Your task to perform on an android device: turn on notifications settings in the gmail app Image 0: 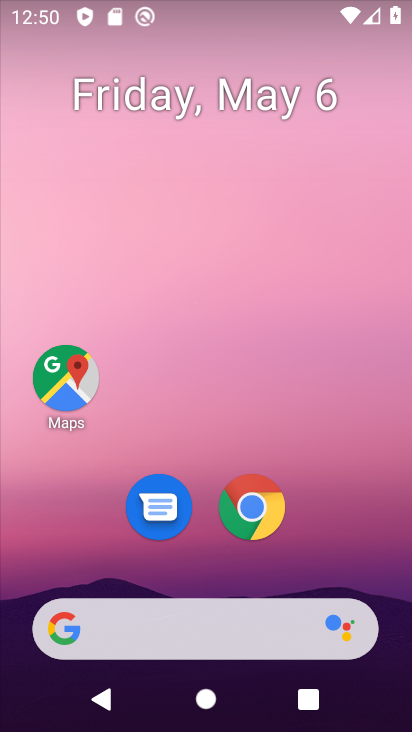
Step 0: drag from (161, 611) to (300, 74)
Your task to perform on an android device: turn on notifications settings in the gmail app Image 1: 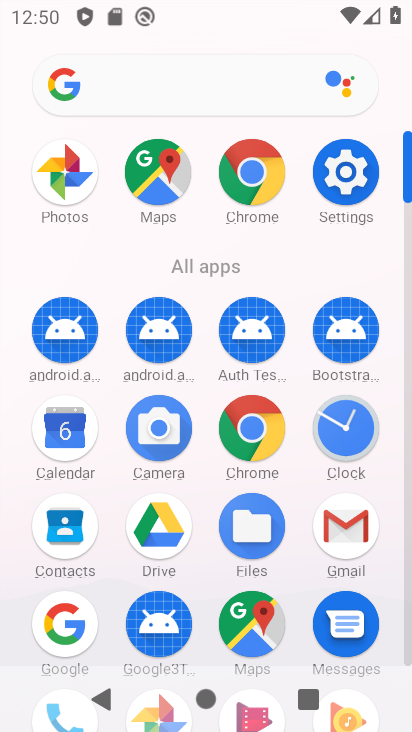
Step 1: click (354, 525)
Your task to perform on an android device: turn on notifications settings in the gmail app Image 2: 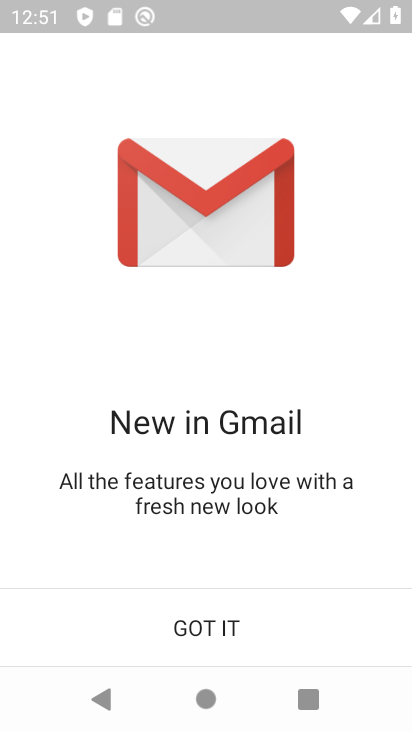
Step 2: click (248, 635)
Your task to perform on an android device: turn on notifications settings in the gmail app Image 3: 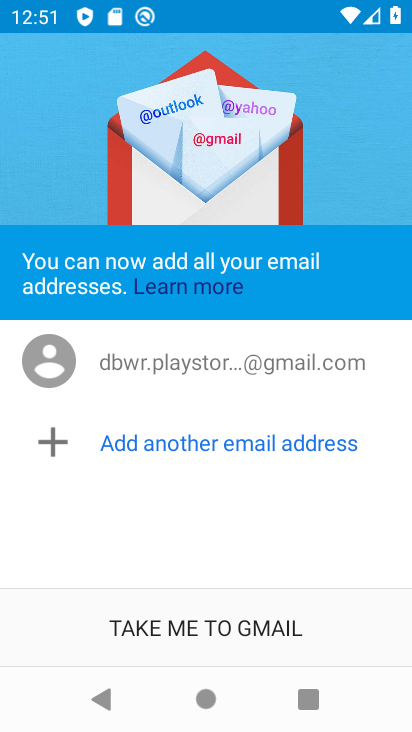
Step 3: click (185, 637)
Your task to perform on an android device: turn on notifications settings in the gmail app Image 4: 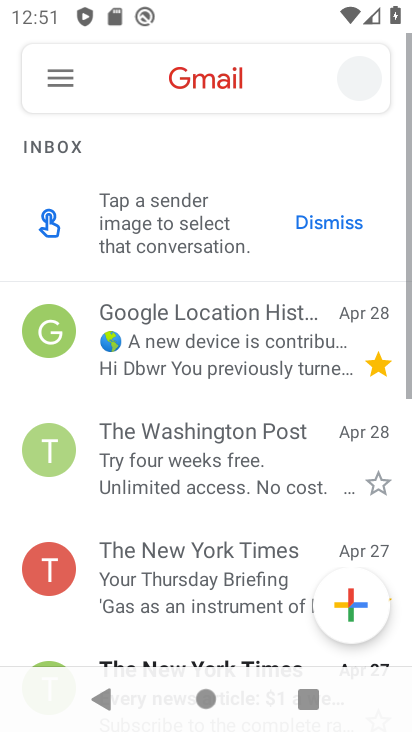
Step 4: click (65, 79)
Your task to perform on an android device: turn on notifications settings in the gmail app Image 5: 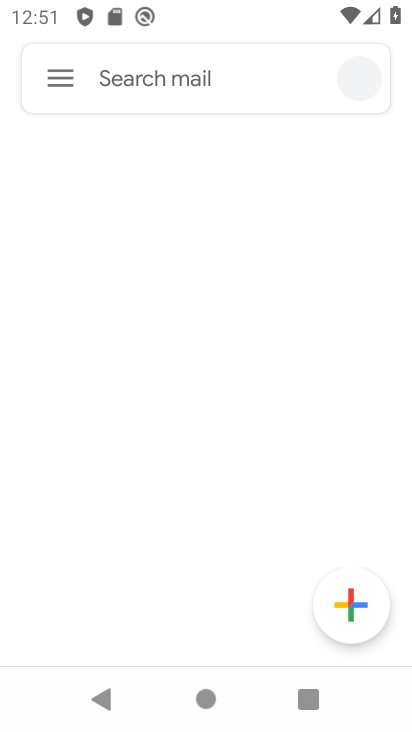
Step 5: drag from (140, 614) to (237, 174)
Your task to perform on an android device: turn on notifications settings in the gmail app Image 6: 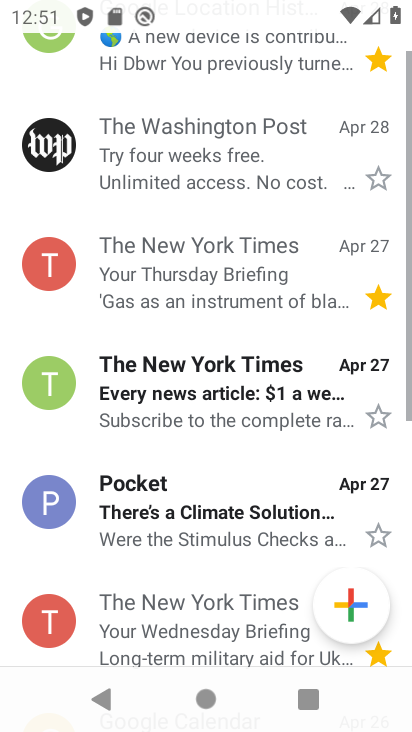
Step 6: drag from (136, 140) to (133, 622)
Your task to perform on an android device: turn on notifications settings in the gmail app Image 7: 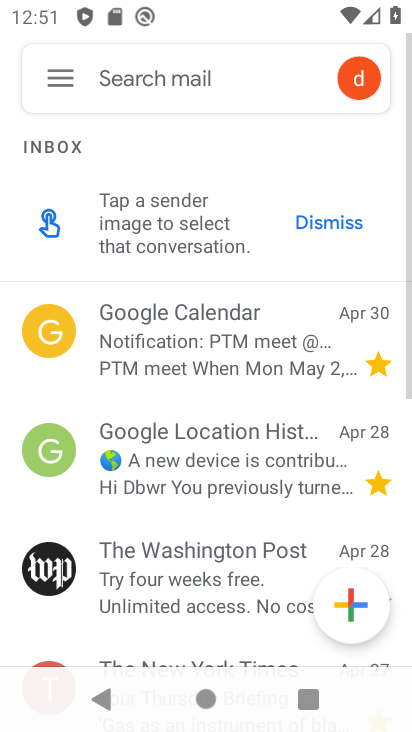
Step 7: click (44, 66)
Your task to perform on an android device: turn on notifications settings in the gmail app Image 8: 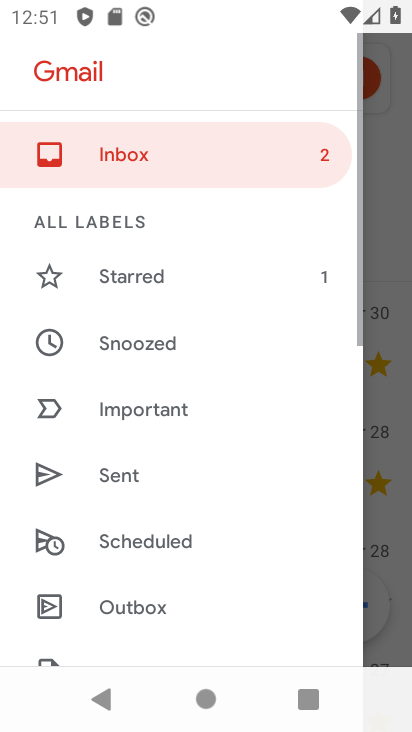
Step 8: drag from (127, 625) to (240, 149)
Your task to perform on an android device: turn on notifications settings in the gmail app Image 9: 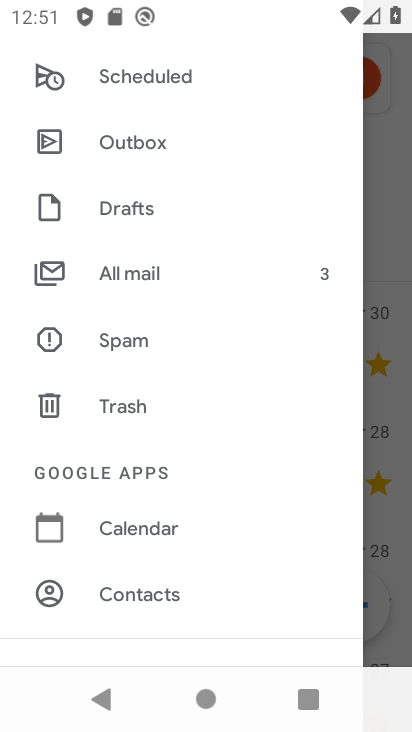
Step 9: drag from (140, 612) to (259, 210)
Your task to perform on an android device: turn on notifications settings in the gmail app Image 10: 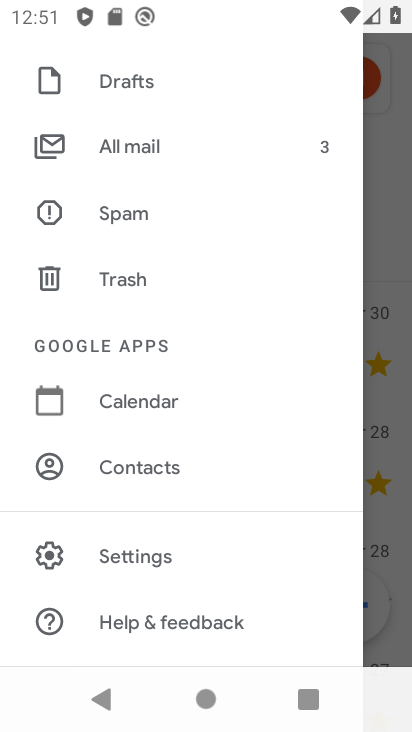
Step 10: click (170, 558)
Your task to perform on an android device: turn on notifications settings in the gmail app Image 11: 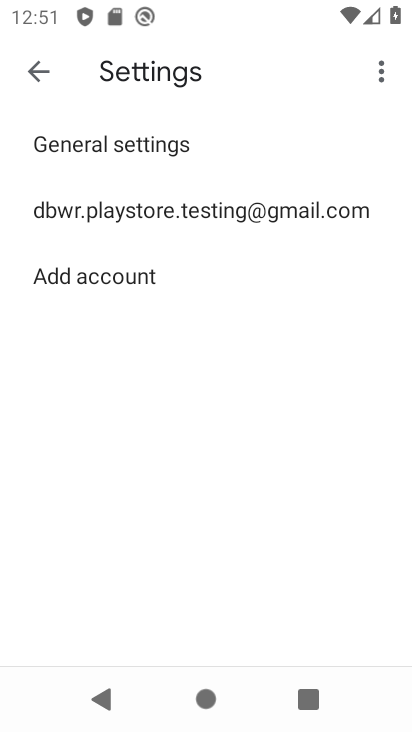
Step 11: drag from (137, 624) to (286, 199)
Your task to perform on an android device: turn on notifications settings in the gmail app Image 12: 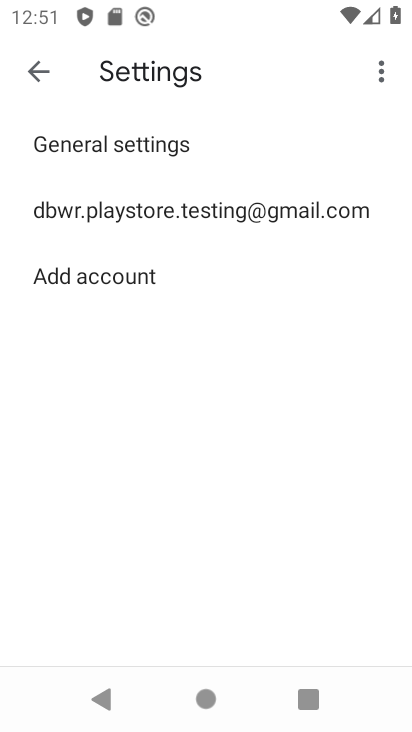
Step 12: click (271, 197)
Your task to perform on an android device: turn on notifications settings in the gmail app Image 13: 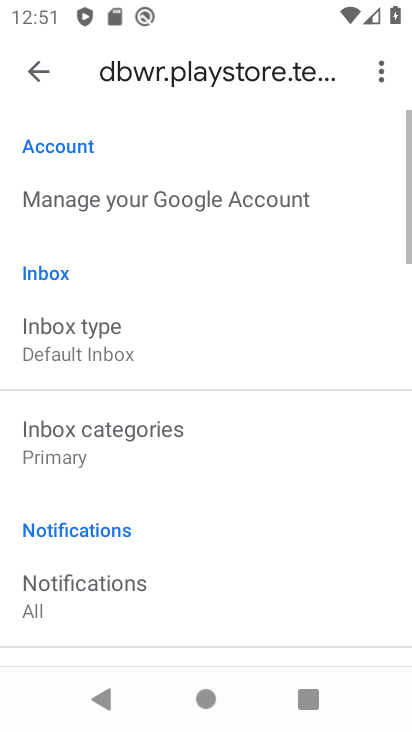
Step 13: drag from (158, 609) to (252, 193)
Your task to perform on an android device: turn on notifications settings in the gmail app Image 14: 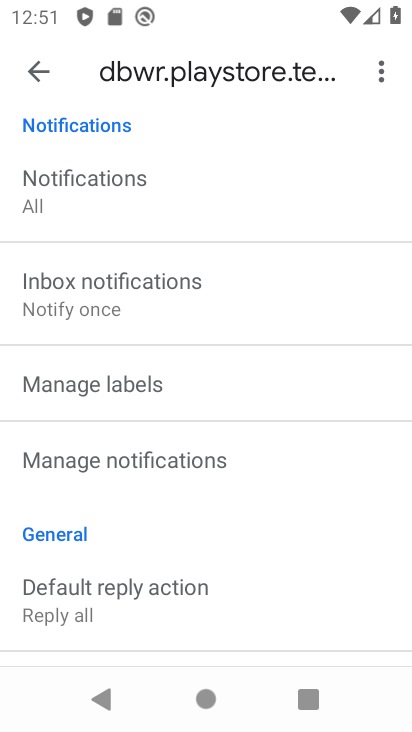
Step 14: click (158, 465)
Your task to perform on an android device: turn on notifications settings in the gmail app Image 15: 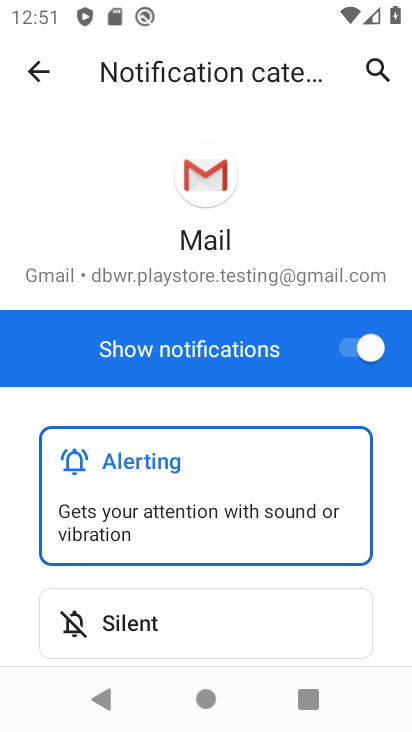
Step 15: task complete